Your task to perform on an android device: find which apps use the phone's location Image 0: 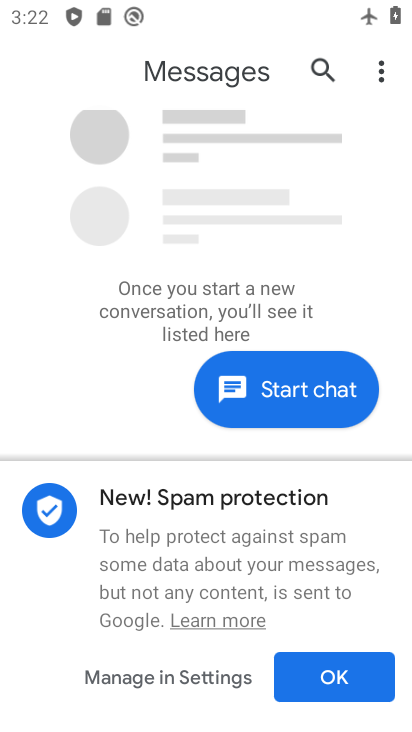
Step 0: press home button
Your task to perform on an android device: find which apps use the phone's location Image 1: 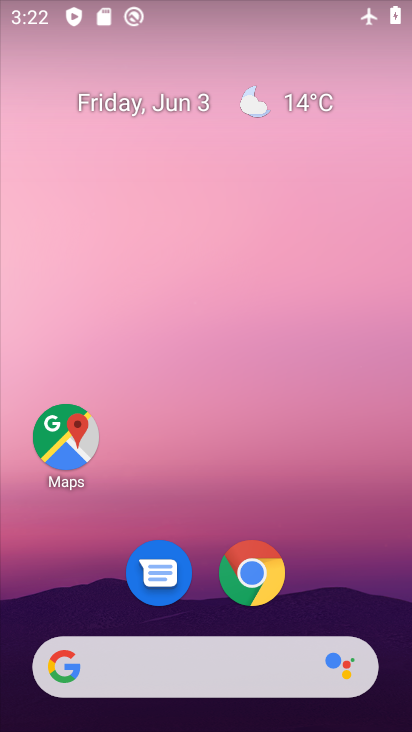
Step 1: drag from (194, 533) to (282, 34)
Your task to perform on an android device: find which apps use the phone's location Image 2: 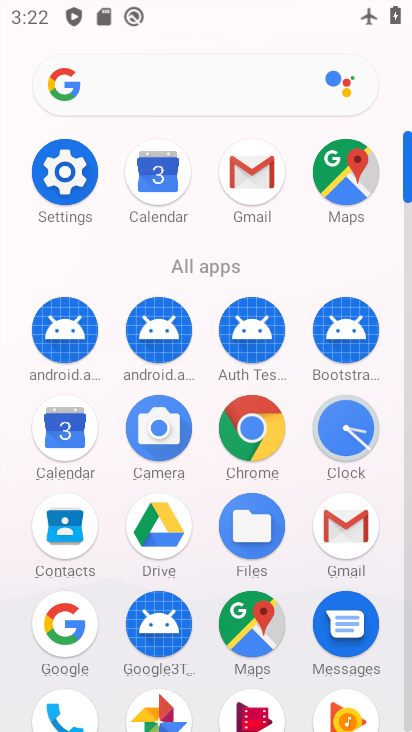
Step 2: drag from (218, 518) to (258, 162)
Your task to perform on an android device: find which apps use the phone's location Image 3: 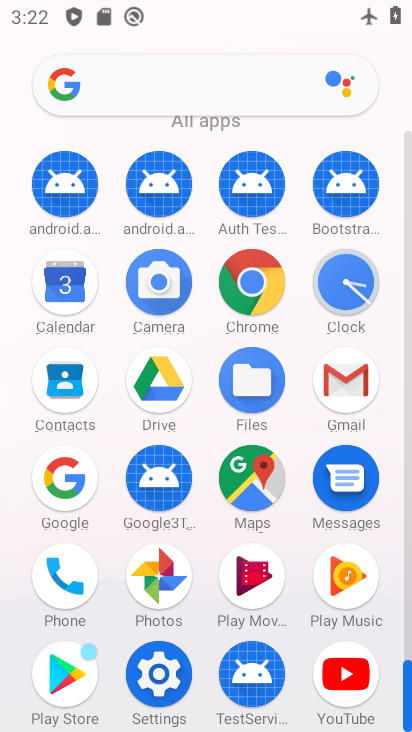
Step 3: click (153, 652)
Your task to perform on an android device: find which apps use the phone's location Image 4: 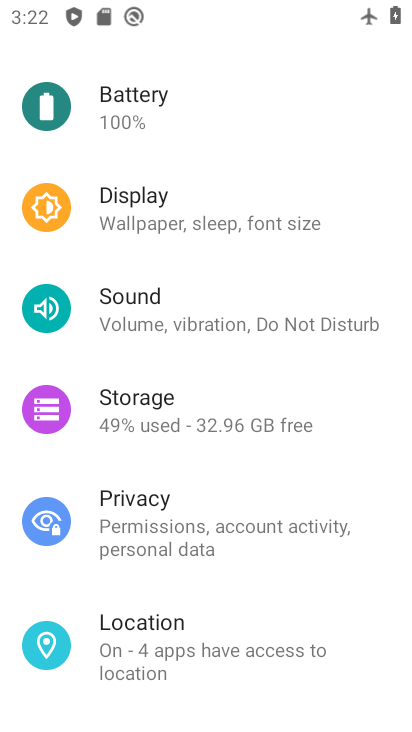
Step 4: click (192, 646)
Your task to perform on an android device: find which apps use the phone's location Image 5: 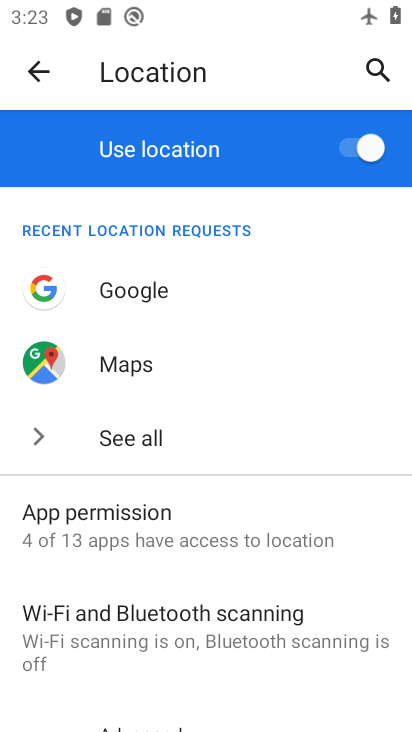
Step 5: drag from (189, 557) to (193, 255)
Your task to perform on an android device: find which apps use the phone's location Image 6: 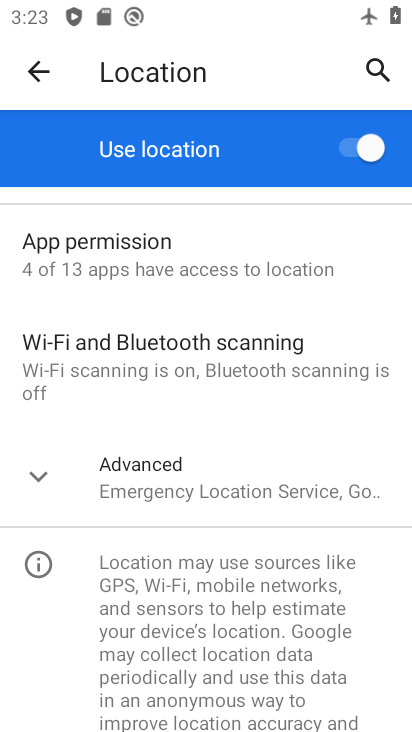
Step 6: click (205, 258)
Your task to perform on an android device: find which apps use the phone's location Image 7: 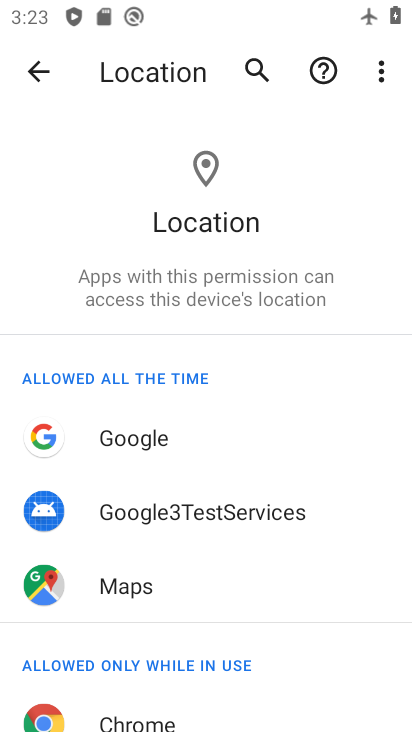
Step 7: task complete